Your task to perform on an android device: turn pop-ups off in chrome Image 0: 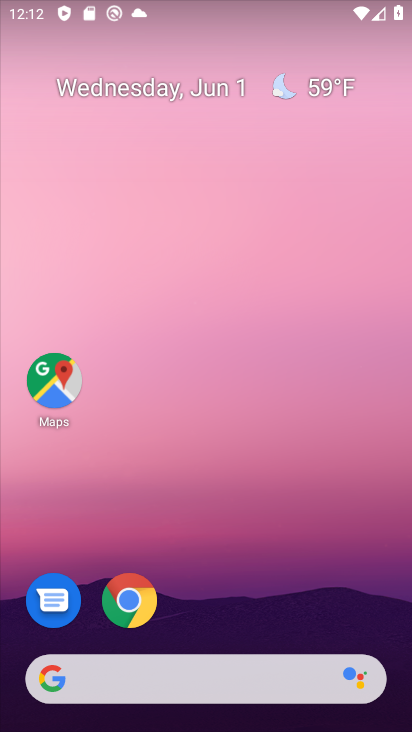
Step 0: click (125, 603)
Your task to perform on an android device: turn pop-ups off in chrome Image 1: 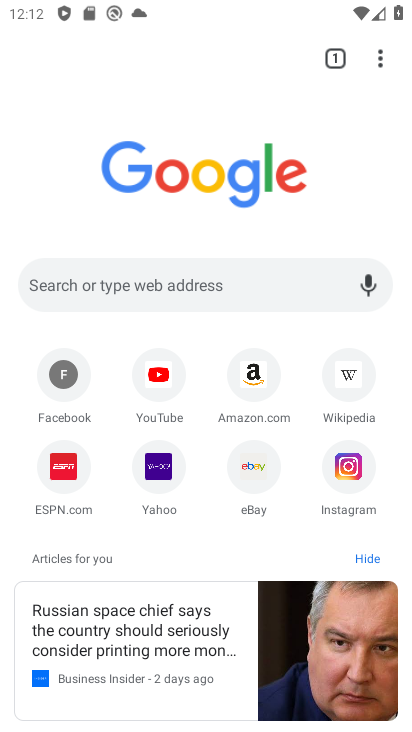
Step 1: click (393, 50)
Your task to perform on an android device: turn pop-ups off in chrome Image 2: 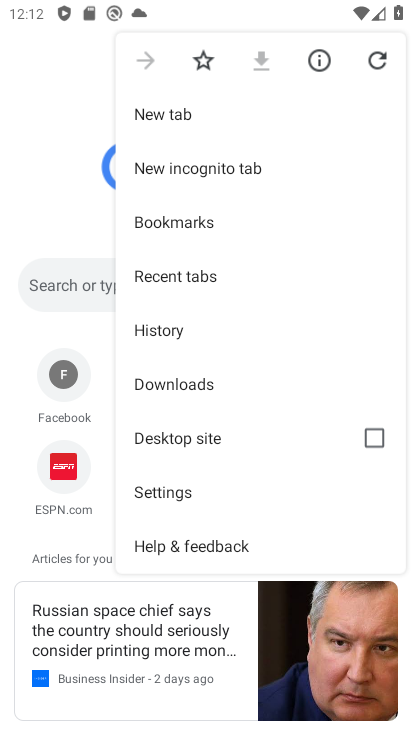
Step 2: click (187, 495)
Your task to perform on an android device: turn pop-ups off in chrome Image 3: 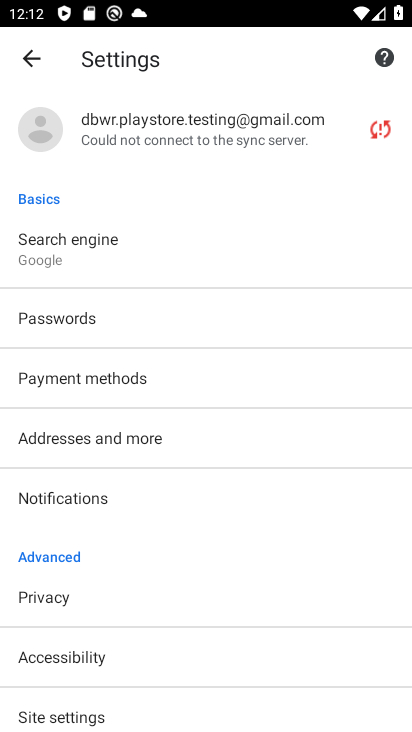
Step 3: click (86, 692)
Your task to perform on an android device: turn pop-ups off in chrome Image 4: 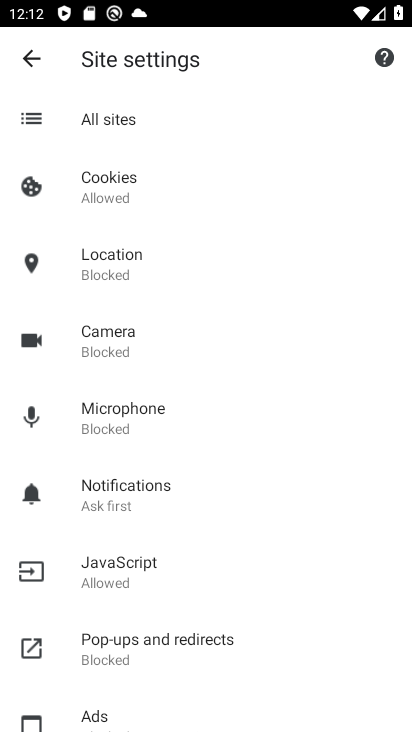
Step 4: click (133, 635)
Your task to perform on an android device: turn pop-ups off in chrome Image 5: 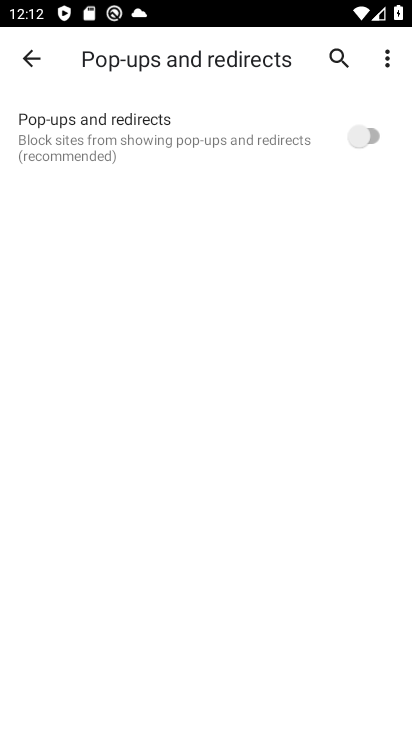
Step 5: task complete